Your task to perform on an android device: Go to accessibility settings Image 0: 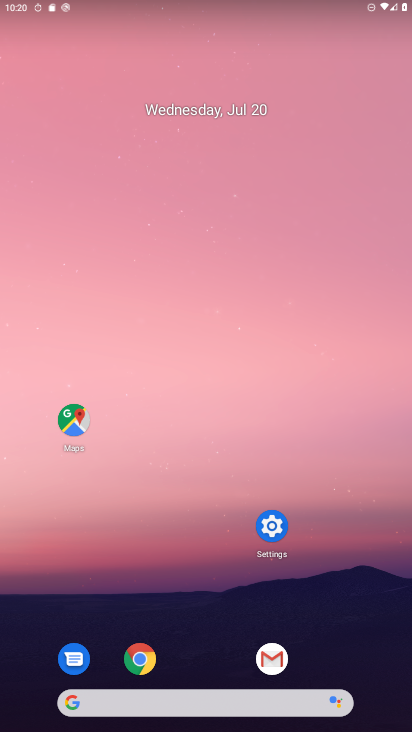
Step 0: click (264, 531)
Your task to perform on an android device: Go to accessibility settings Image 1: 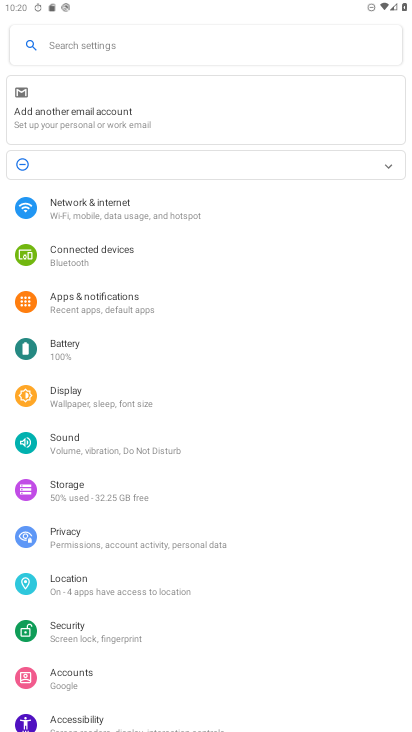
Step 1: click (73, 49)
Your task to perform on an android device: Go to accessibility settings Image 2: 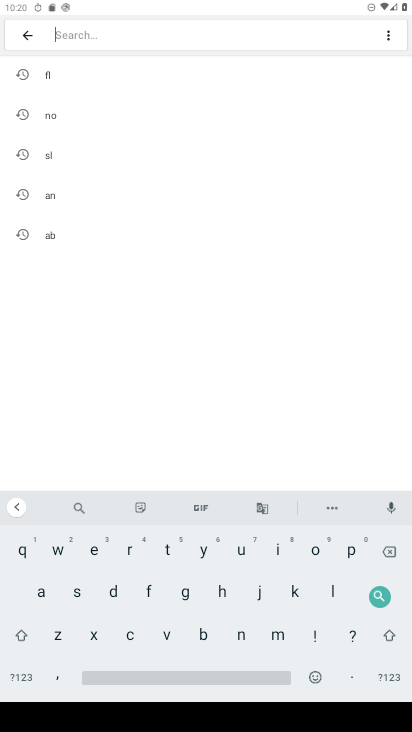
Step 2: click (36, 589)
Your task to perform on an android device: Go to accessibility settings Image 3: 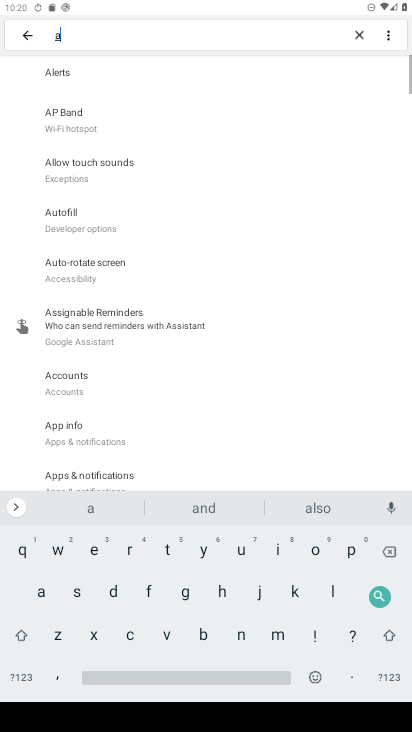
Step 3: click (125, 637)
Your task to perform on an android device: Go to accessibility settings Image 4: 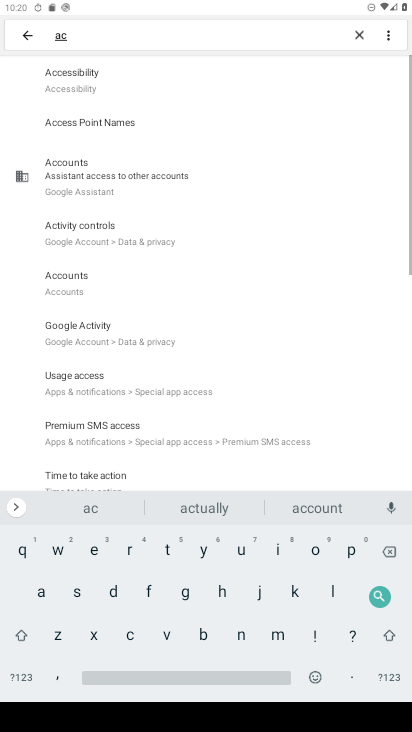
Step 4: click (100, 82)
Your task to perform on an android device: Go to accessibility settings Image 5: 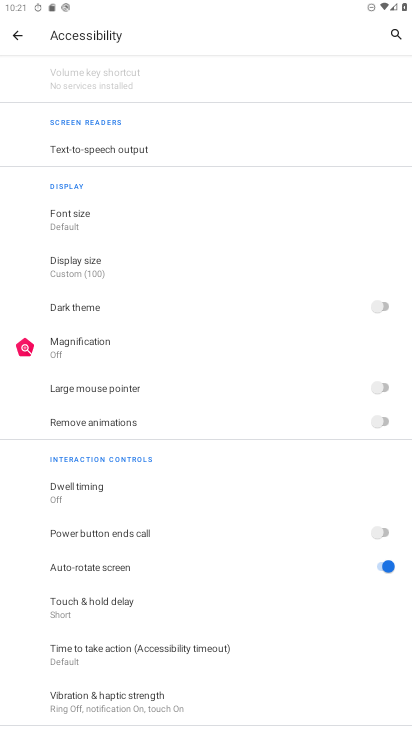
Step 5: task complete